Your task to perform on an android device: Open calendar and show me the first week of next month Image 0: 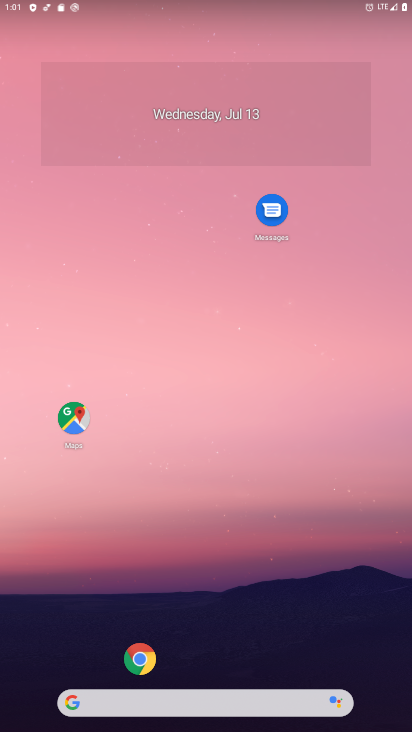
Step 0: drag from (28, 710) to (358, 17)
Your task to perform on an android device: Open calendar and show me the first week of next month Image 1: 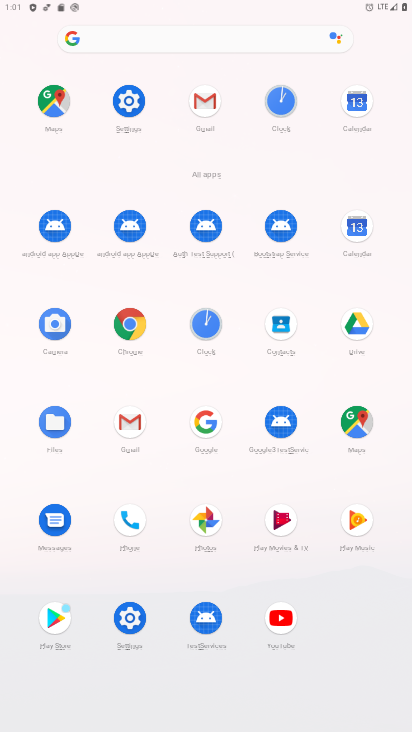
Step 1: click (349, 224)
Your task to perform on an android device: Open calendar and show me the first week of next month Image 2: 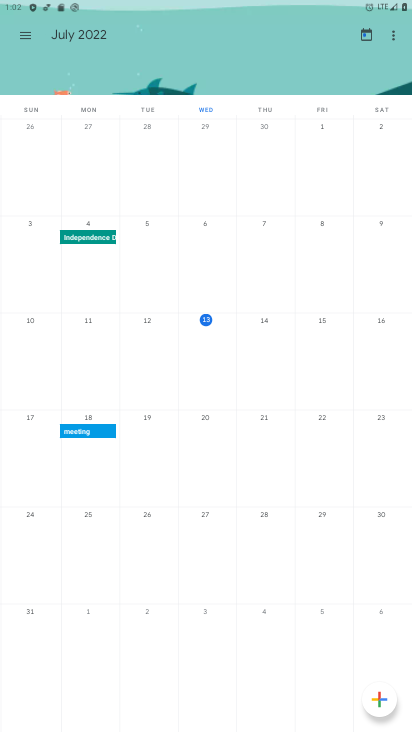
Step 2: drag from (64, 266) to (36, 374)
Your task to perform on an android device: Open calendar and show me the first week of next month Image 3: 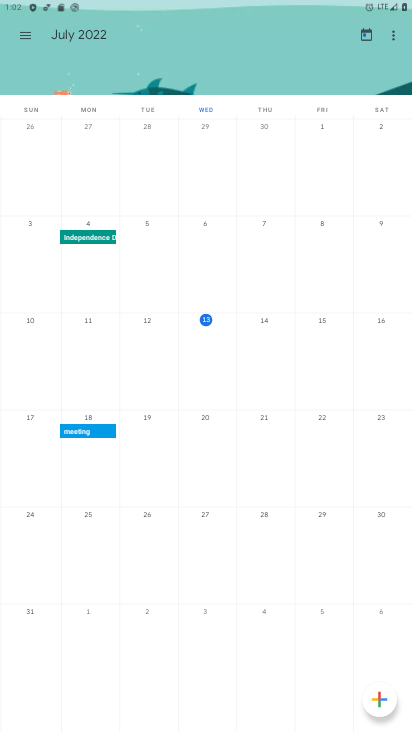
Step 3: drag from (384, 299) to (28, 261)
Your task to perform on an android device: Open calendar and show me the first week of next month Image 4: 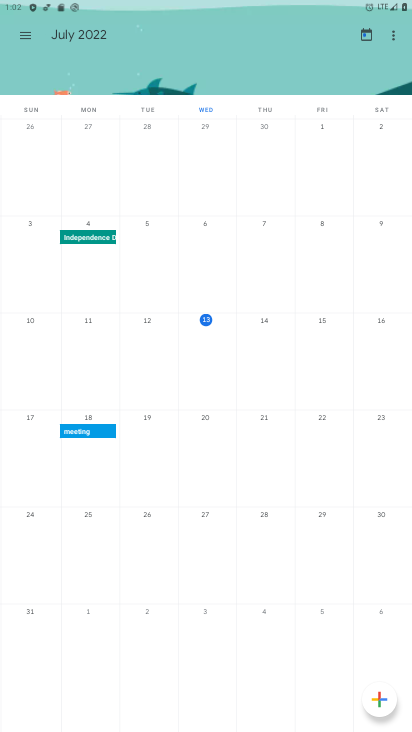
Step 4: drag from (403, 246) to (25, 615)
Your task to perform on an android device: Open calendar and show me the first week of next month Image 5: 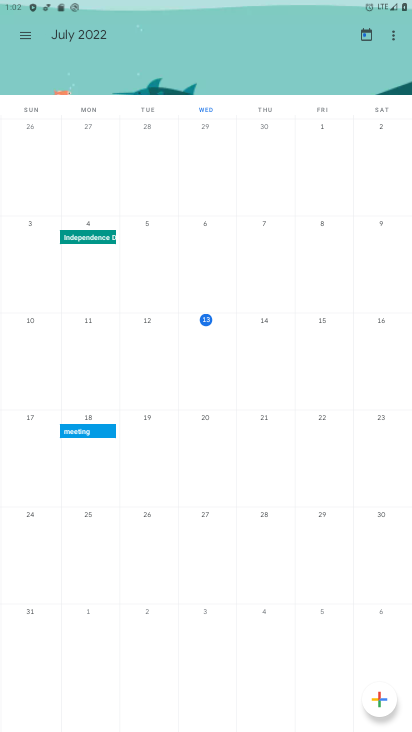
Step 5: drag from (391, 382) to (5, 595)
Your task to perform on an android device: Open calendar and show me the first week of next month Image 6: 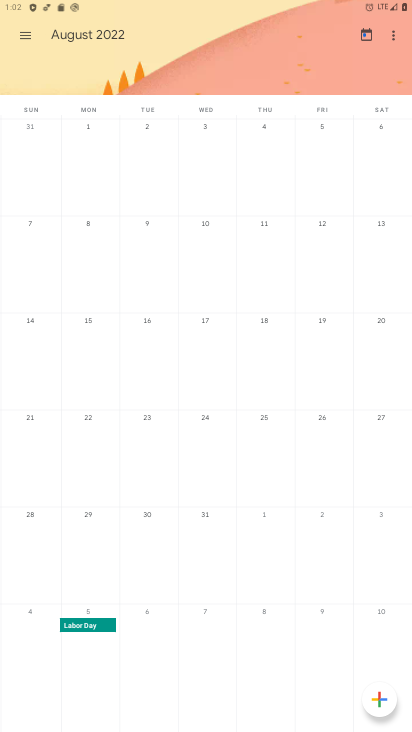
Step 6: click (92, 149)
Your task to perform on an android device: Open calendar and show me the first week of next month Image 7: 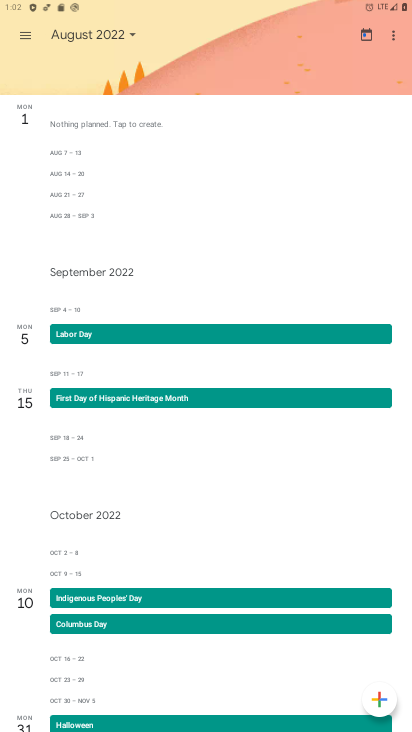
Step 7: task complete